Your task to perform on an android device: Open the Play Movies app and select the watchlist tab. Image 0: 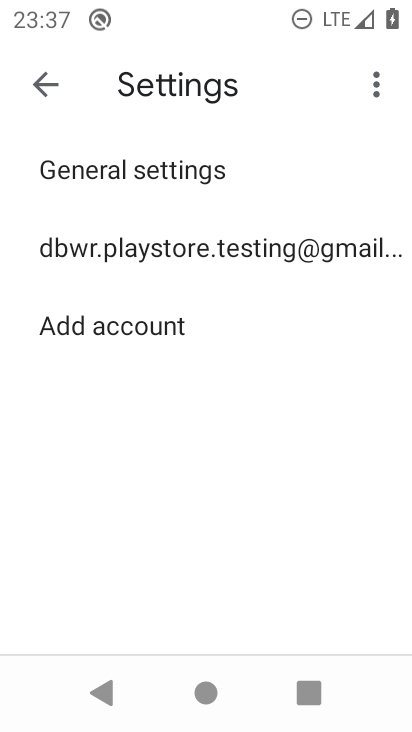
Step 0: press home button
Your task to perform on an android device: Open the Play Movies app and select the watchlist tab. Image 1: 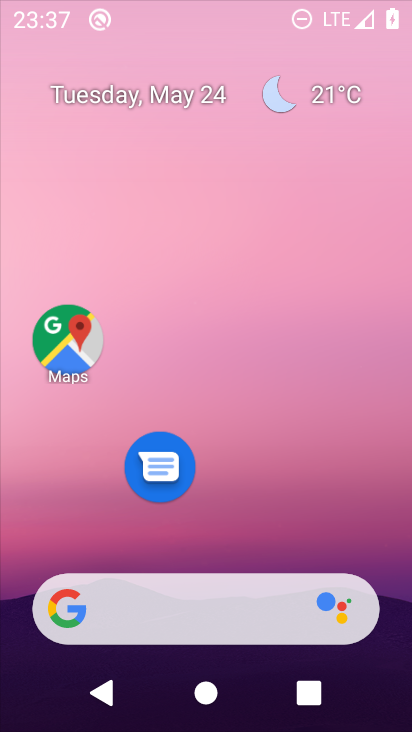
Step 1: drag from (186, 583) to (230, 72)
Your task to perform on an android device: Open the Play Movies app and select the watchlist tab. Image 2: 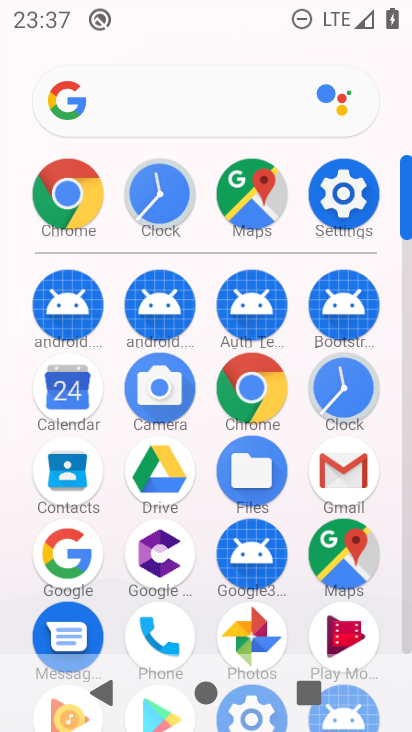
Step 2: click (343, 610)
Your task to perform on an android device: Open the Play Movies app and select the watchlist tab. Image 3: 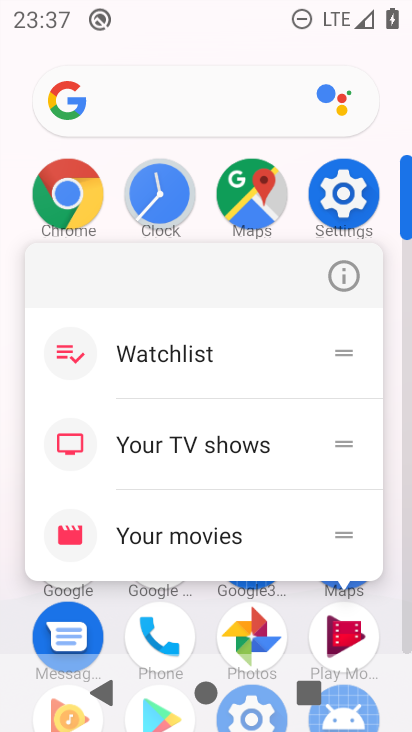
Step 3: click (314, 281)
Your task to perform on an android device: Open the Play Movies app and select the watchlist tab. Image 4: 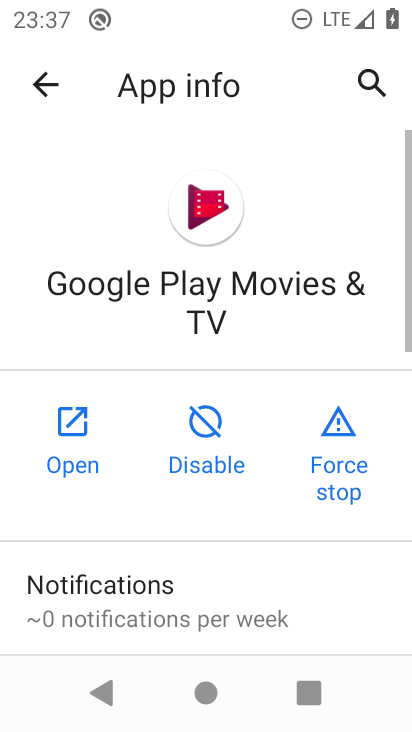
Step 4: click (75, 468)
Your task to perform on an android device: Open the Play Movies app and select the watchlist tab. Image 5: 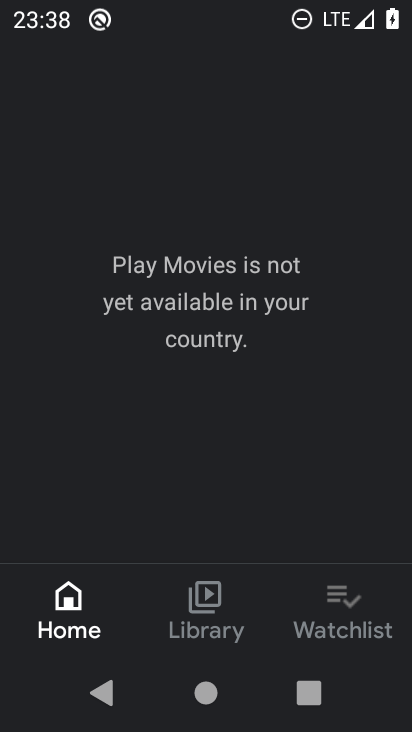
Step 5: click (335, 641)
Your task to perform on an android device: Open the Play Movies app and select the watchlist tab. Image 6: 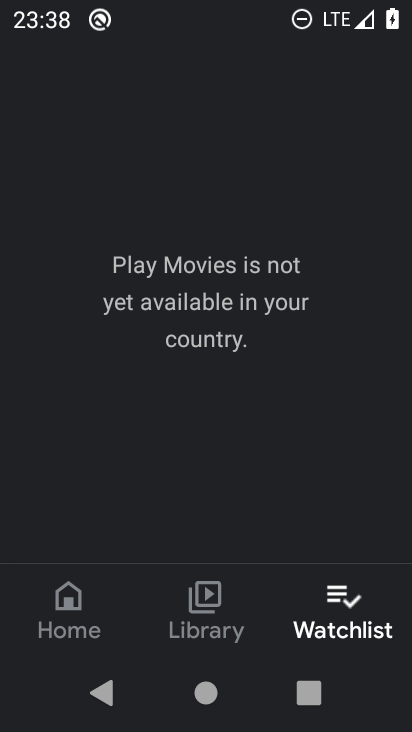
Step 6: task complete